Your task to perform on an android device: Open Chrome and go to settings Image 0: 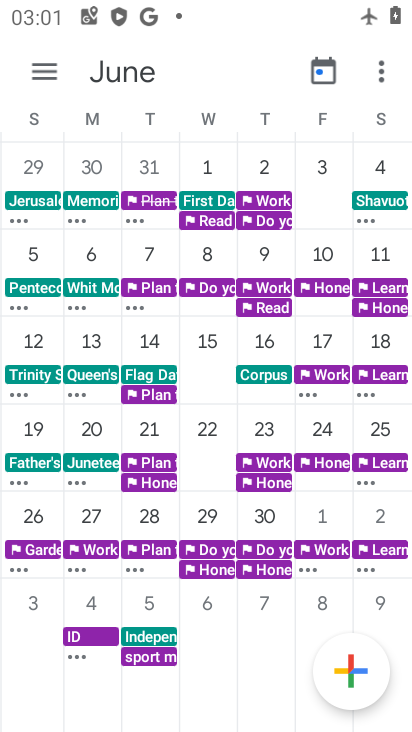
Step 0: press home button
Your task to perform on an android device: Open Chrome and go to settings Image 1: 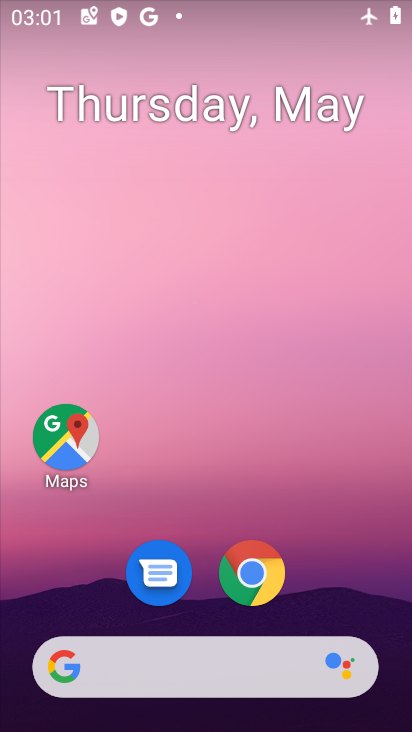
Step 1: click (262, 555)
Your task to perform on an android device: Open Chrome and go to settings Image 2: 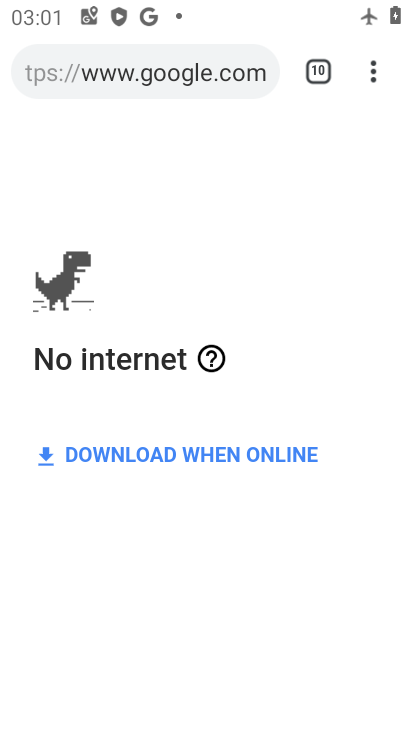
Step 2: click (374, 58)
Your task to perform on an android device: Open Chrome and go to settings Image 3: 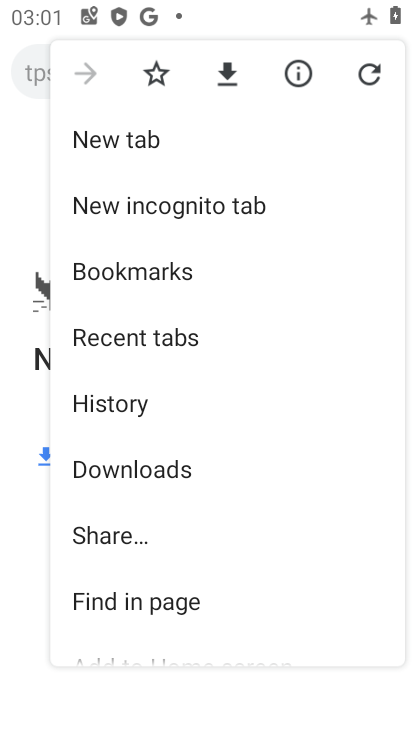
Step 3: drag from (230, 580) to (255, 302)
Your task to perform on an android device: Open Chrome and go to settings Image 4: 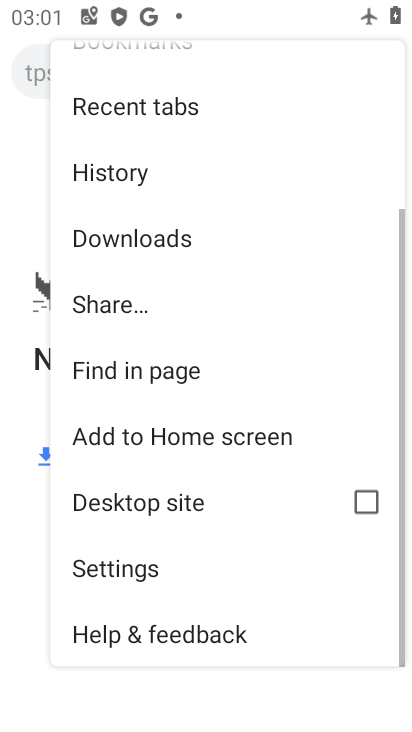
Step 4: click (143, 569)
Your task to perform on an android device: Open Chrome and go to settings Image 5: 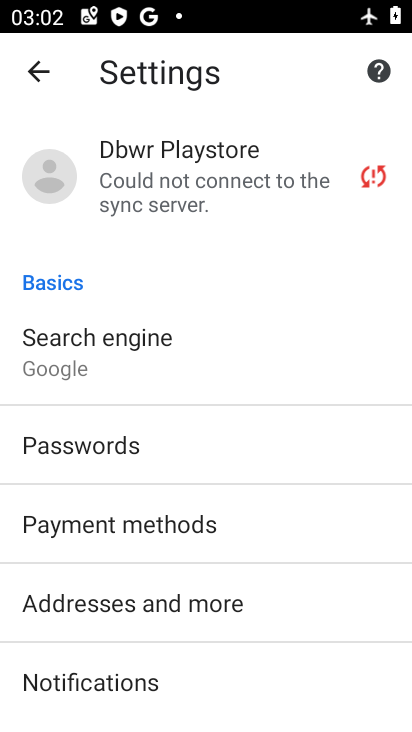
Step 5: task complete